Your task to perform on an android device: Open Google Chrome and click the shortcut for Amazon.com Image 0: 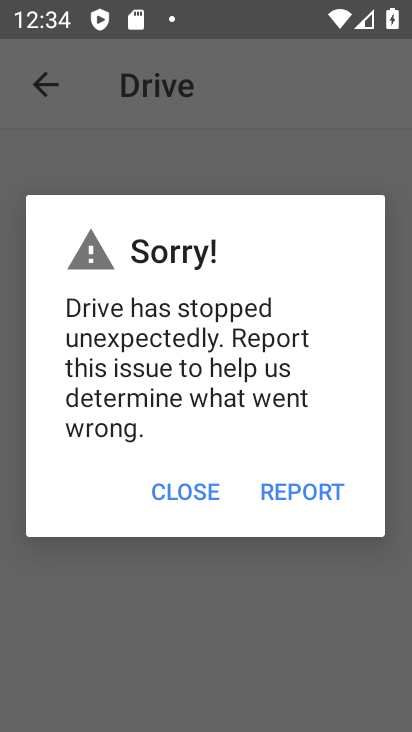
Step 0: press home button
Your task to perform on an android device: Open Google Chrome and click the shortcut for Amazon.com Image 1: 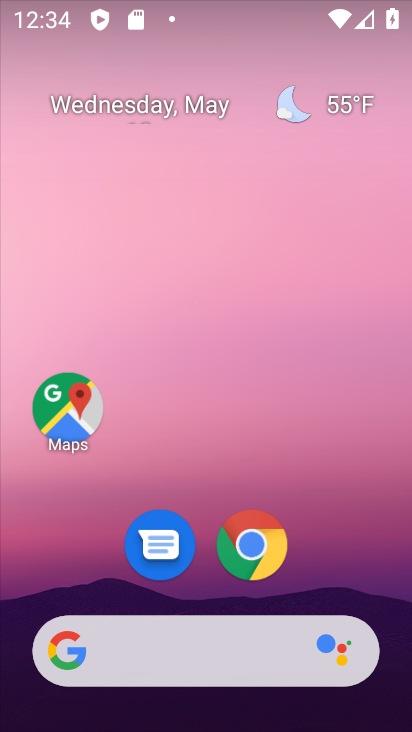
Step 1: drag from (346, 592) to (324, 56)
Your task to perform on an android device: Open Google Chrome and click the shortcut for Amazon.com Image 2: 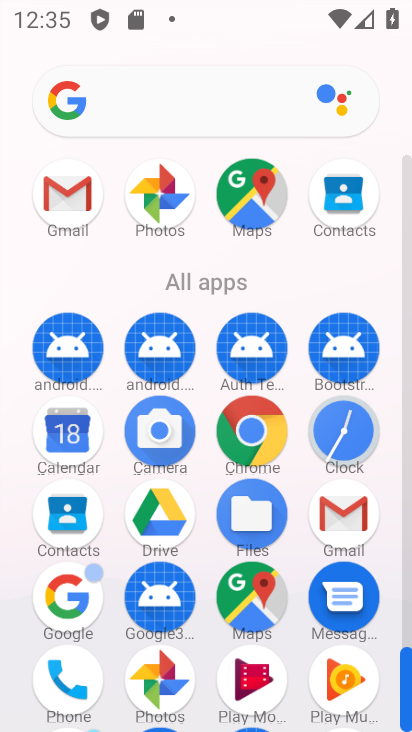
Step 2: click (257, 435)
Your task to perform on an android device: Open Google Chrome and click the shortcut for Amazon.com Image 3: 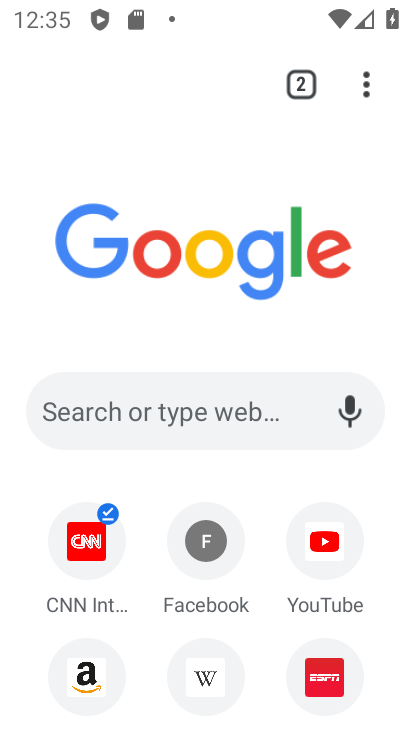
Step 3: click (106, 675)
Your task to perform on an android device: Open Google Chrome and click the shortcut for Amazon.com Image 4: 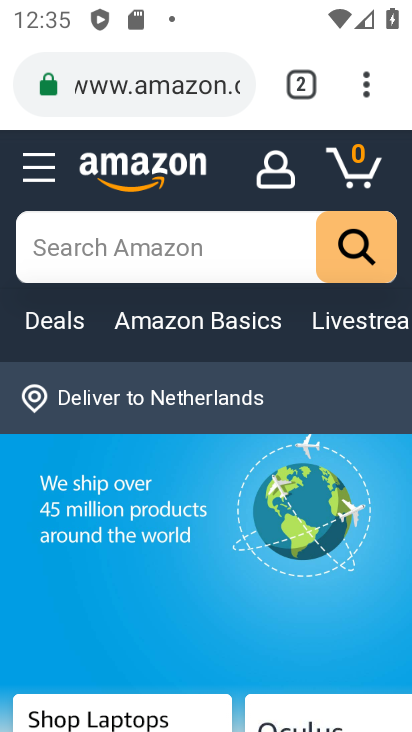
Step 4: task complete